Your task to perform on an android device: Go to Amazon Image 0: 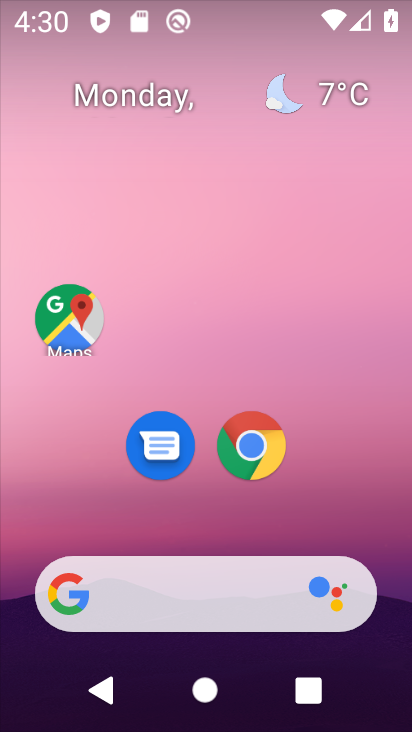
Step 0: click (270, 453)
Your task to perform on an android device: Go to Amazon Image 1: 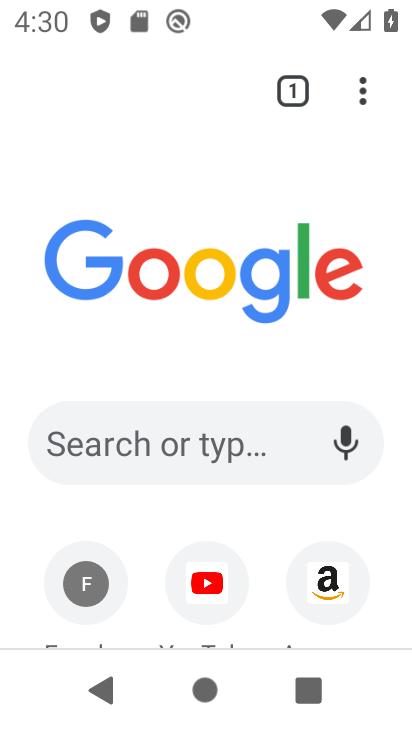
Step 1: click (347, 604)
Your task to perform on an android device: Go to Amazon Image 2: 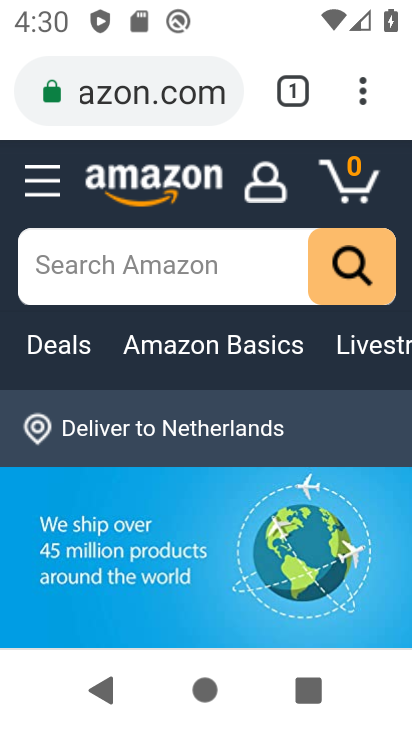
Step 2: task complete